Your task to perform on an android device: open app "eBay: The shopping marketplace" (install if not already installed) Image 0: 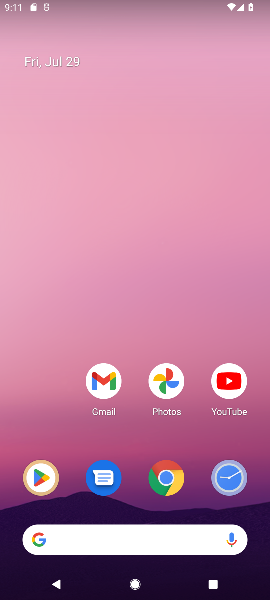
Step 0: click (52, 480)
Your task to perform on an android device: open app "eBay: The shopping marketplace" (install if not already installed) Image 1: 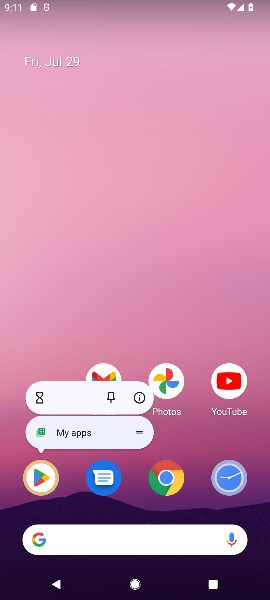
Step 1: click (42, 479)
Your task to perform on an android device: open app "eBay: The shopping marketplace" (install if not already installed) Image 2: 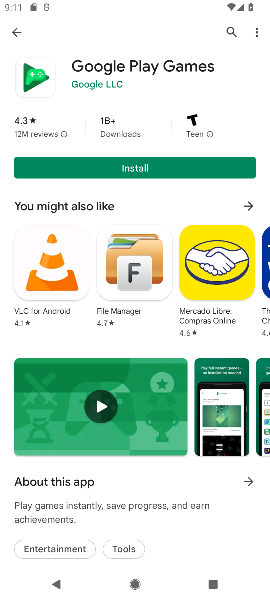
Step 2: click (229, 35)
Your task to perform on an android device: open app "eBay: The shopping marketplace" (install if not already installed) Image 3: 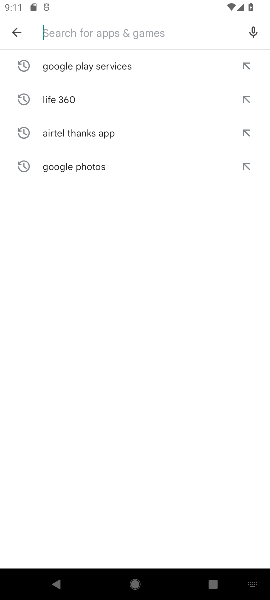
Step 3: click (106, 27)
Your task to perform on an android device: open app "eBay: The shopping marketplace" (install if not already installed) Image 4: 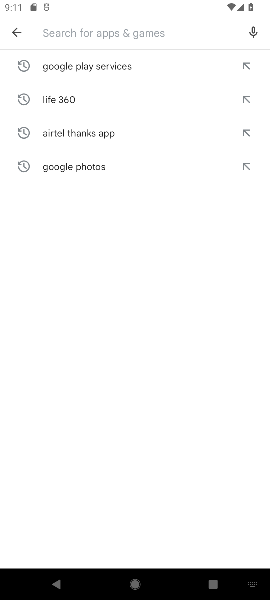
Step 4: type "ebay"
Your task to perform on an android device: open app "eBay: The shopping marketplace" (install if not already installed) Image 5: 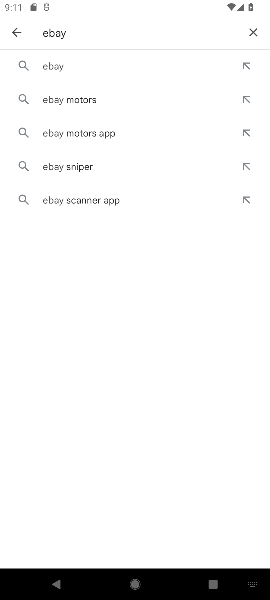
Step 5: click (70, 63)
Your task to perform on an android device: open app "eBay: The shopping marketplace" (install if not already installed) Image 6: 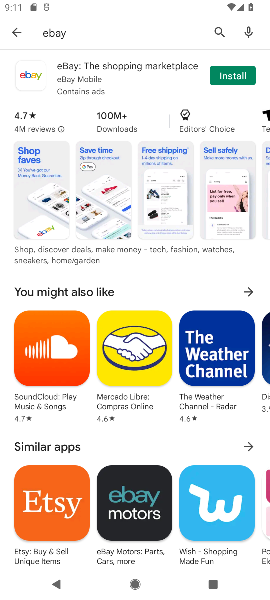
Step 6: click (228, 74)
Your task to perform on an android device: open app "eBay: The shopping marketplace" (install if not already installed) Image 7: 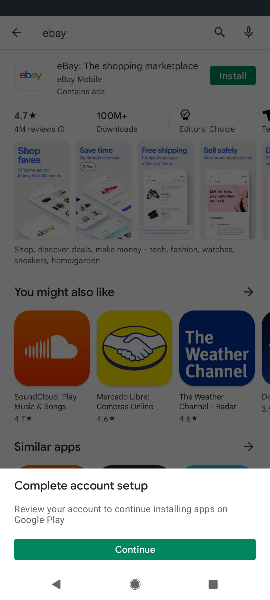
Step 7: click (90, 539)
Your task to perform on an android device: open app "eBay: The shopping marketplace" (install if not already installed) Image 8: 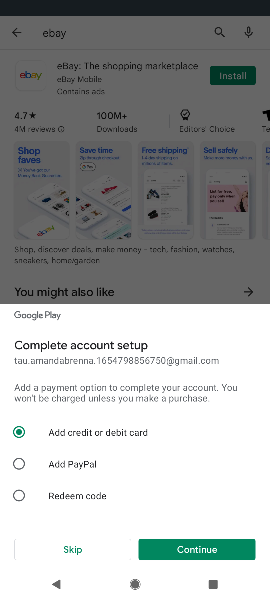
Step 8: click (71, 550)
Your task to perform on an android device: open app "eBay: The shopping marketplace" (install if not already installed) Image 9: 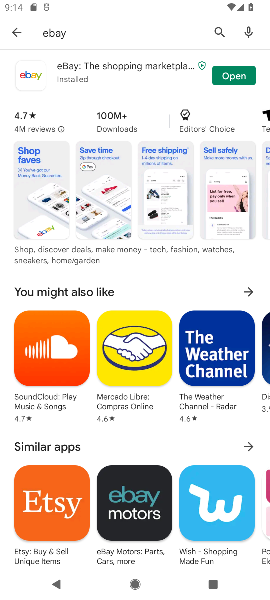
Step 9: click (238, 72)
Your task to perform on an android device: open app "eBay: The shopping marketplace" (install if not already installed) Image 10: 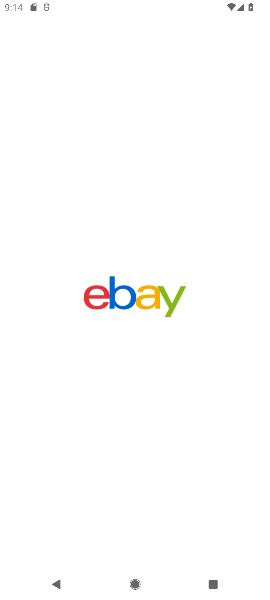
Step 10: task complete